Your task to perform on an android device: Is it going to rain today? Image 0: 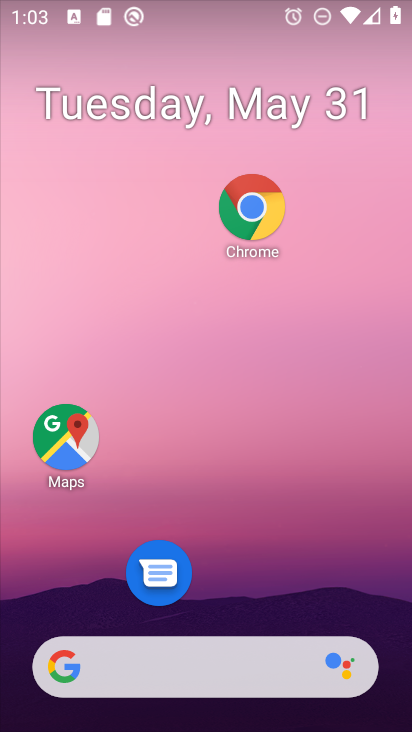
Step 0: drag from (267, 553) to (282, 174)
Your task to perform on an android device: Is it going to rain today? Image 1: 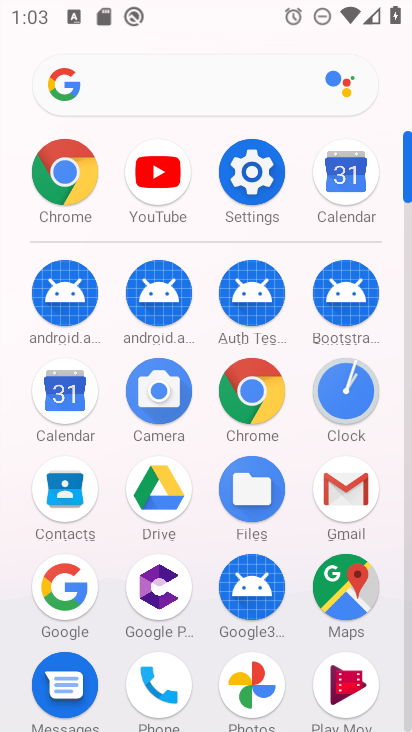
Step 1: click (70, 576)
Your task to perform on an android device: Is it going to rain today? Image 2: 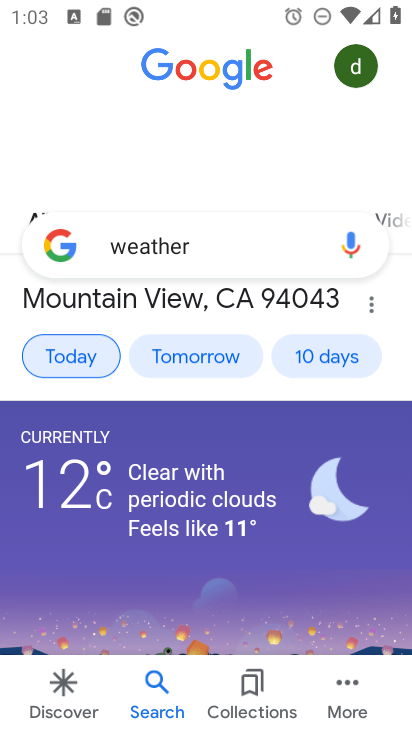
Step 2: task complete